Your task to perform on an android device: Empty the shopping cart on target.com. Add sony triple a to the cart on target.com, then select checkout. Image 0: 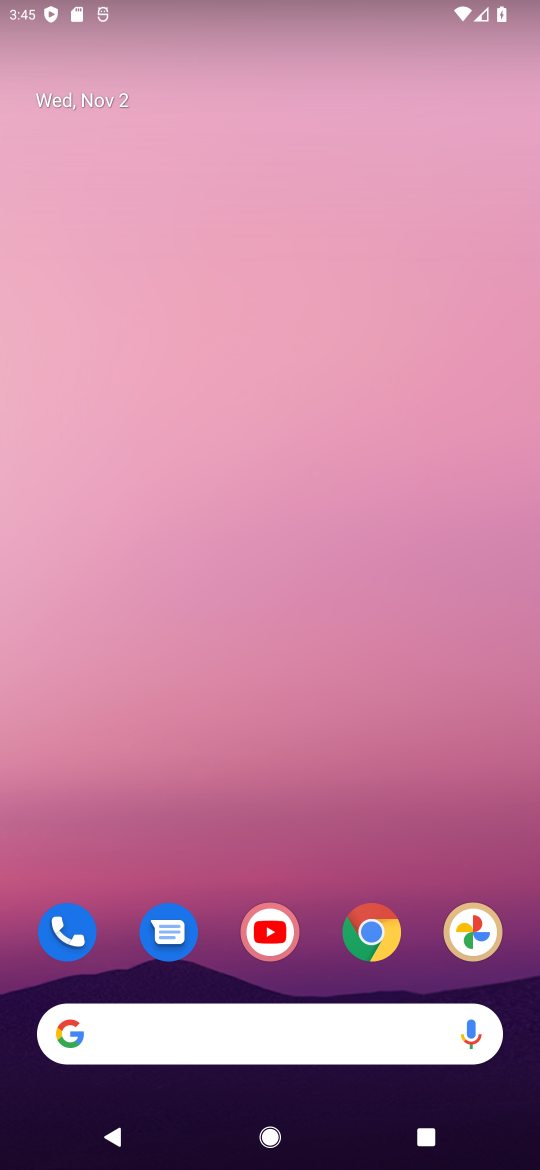
Step 0: click (387, 934)
Your task to perform on an android device: Empty the shopping cart on target.com. Add sony triple a to the cart on target.com, then select checkout. Image 1: 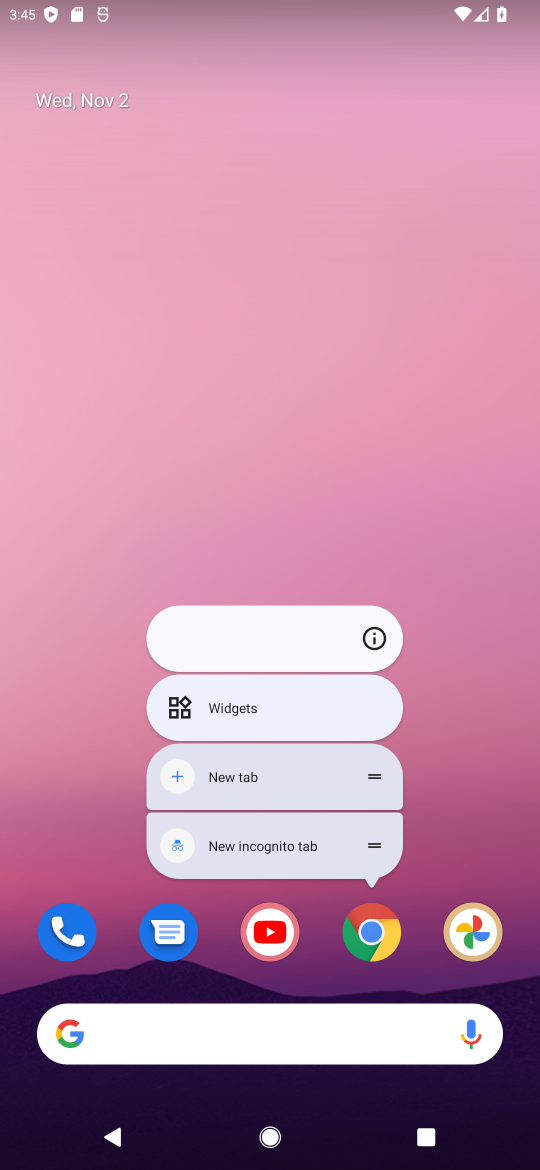
Step 1: click (387, 934)
Your task to perform on an android device: Empty the shopping cart on target.com. Add sony triple a to the cart on target.com, then select checkout. Image 2: 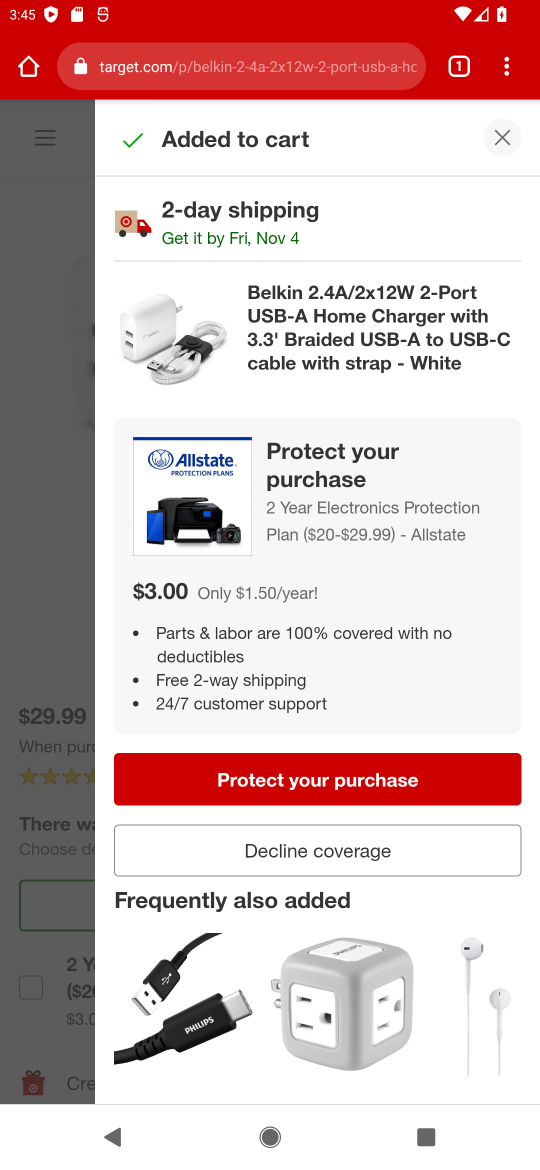
Step 2: click (503, 144)
Your task to perform on an android device: Empty the shopping cart on target.com. Add sony triple a to the cart on target.com, then select checkout. Image 3: 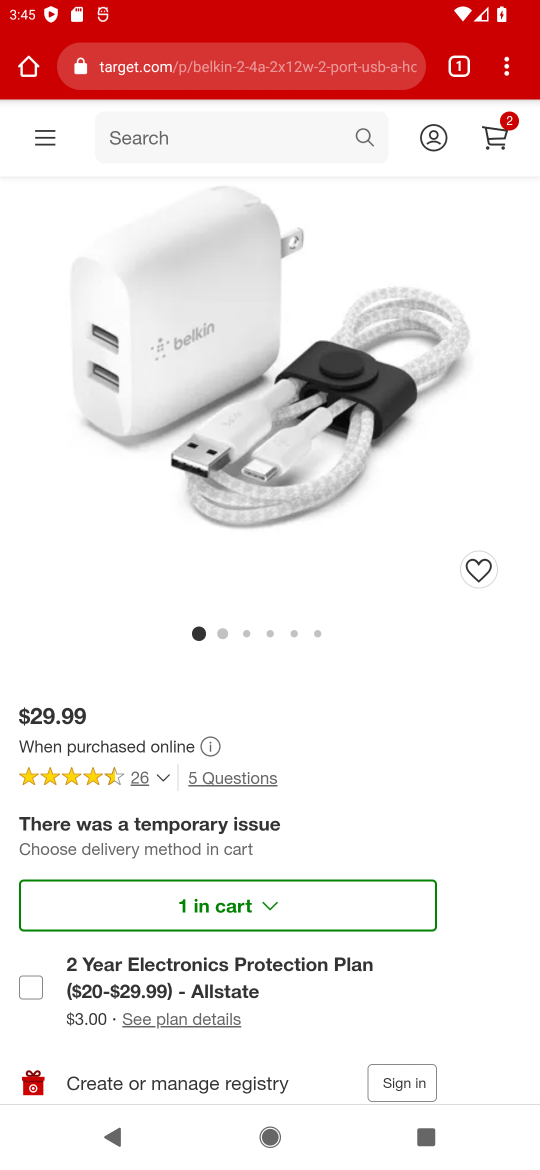
Step 3: click (490, 141)
Your task to perform on an android device: Empty the shopping cart on target.com. Add sony triple a to the cart on target.com, then select checkout. Image 4: 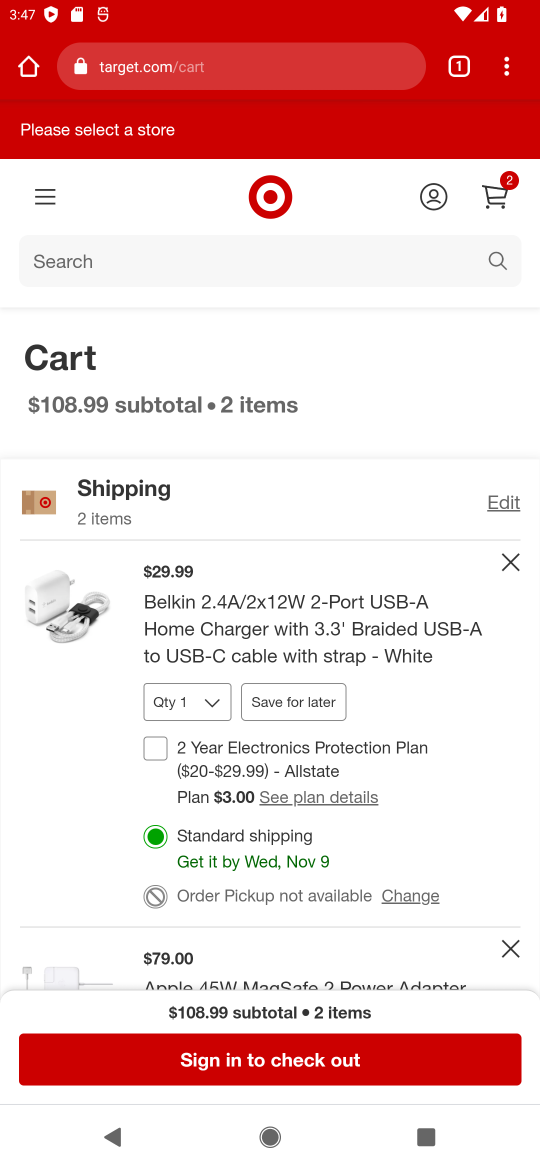
Step 4: click (509, 555)
Your task to perform on an android device: Empty the shopping cart on target.com. Add sony triple a to the cart on target.com, then select checkout. Image 5: 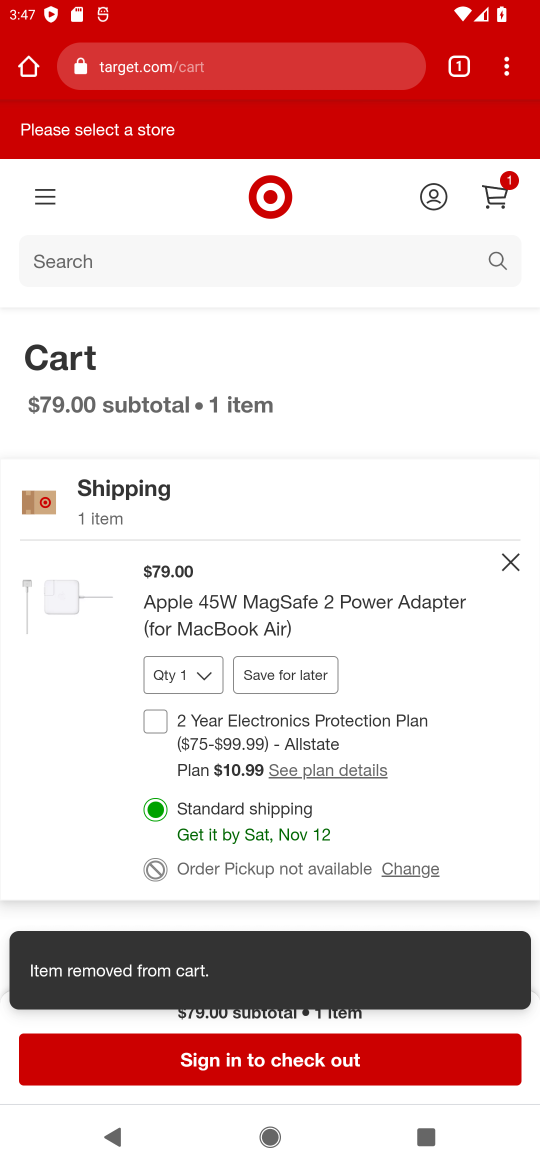
Step 5: click (504, 556)
Your task to perform on an android device: Empty the shopping cart on target.com. Add sony triple a to the cart on target.com, then select checkout. Image 6: 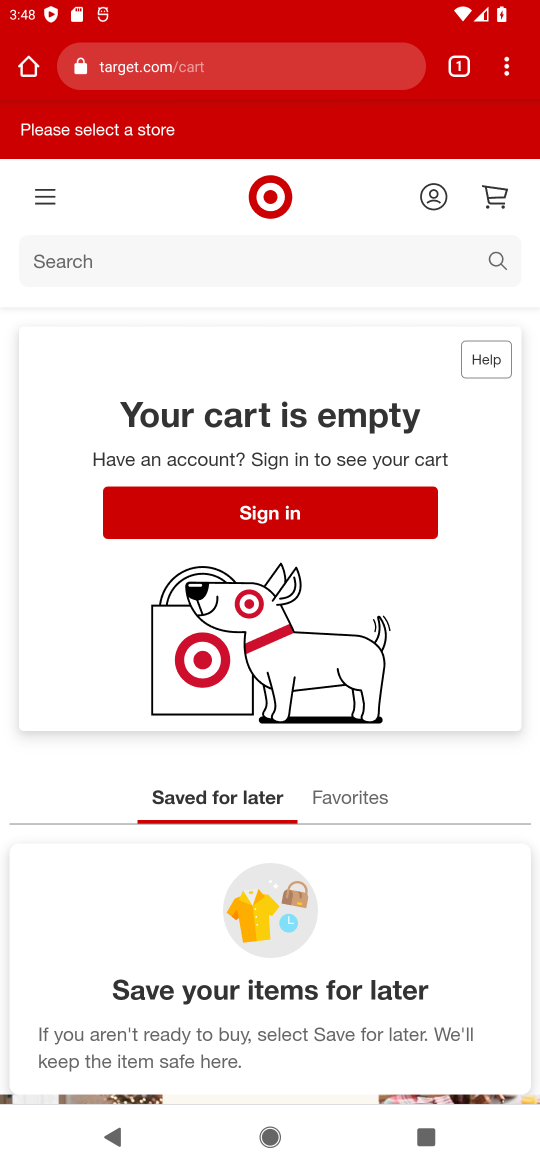
Step 6: click (498, 256)
Your task to perform on an android device: Empty the shopping cart on target.com. Add sony triple a to the cart on target.com, then select checkout. Image 7: 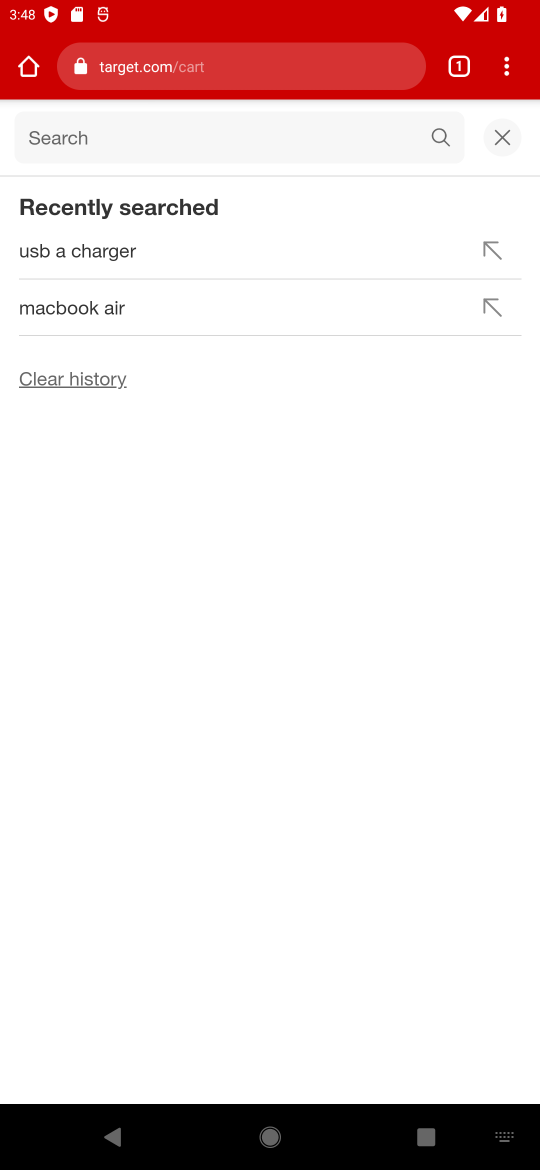
Step 7: type "sony triple a"
Your task to perform on an android device: Empty the shopping cart on target.com. Add sony triple a to the cart on target.com, then select checkout. Image 8: 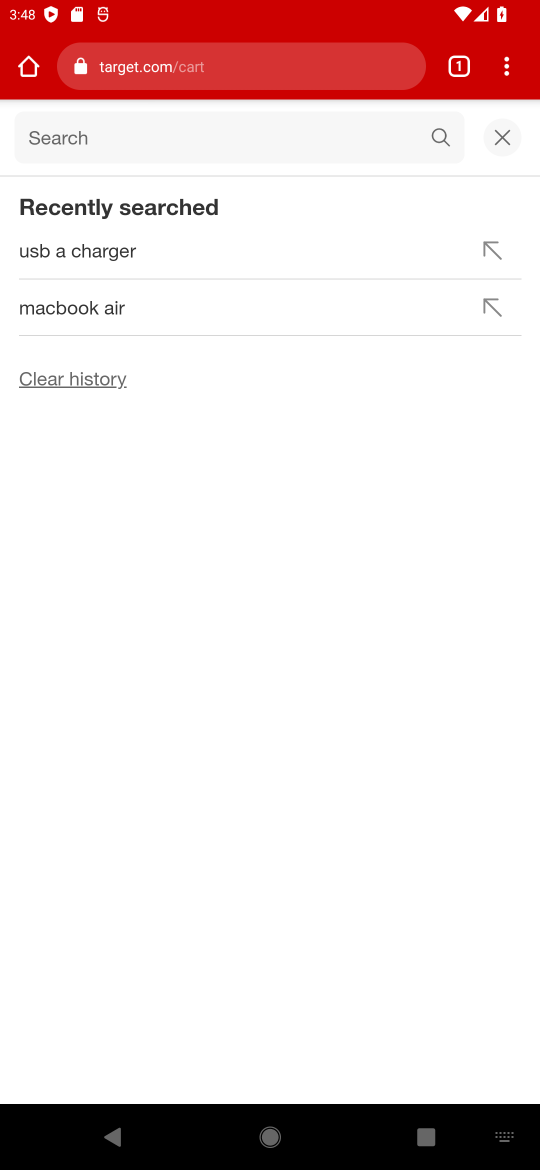
Step 8: press enter
Your task to perform on an android device: Empty the shopping cart on target.com. Add sony triple a to the cart on target.com, then select checkout. Image 9: 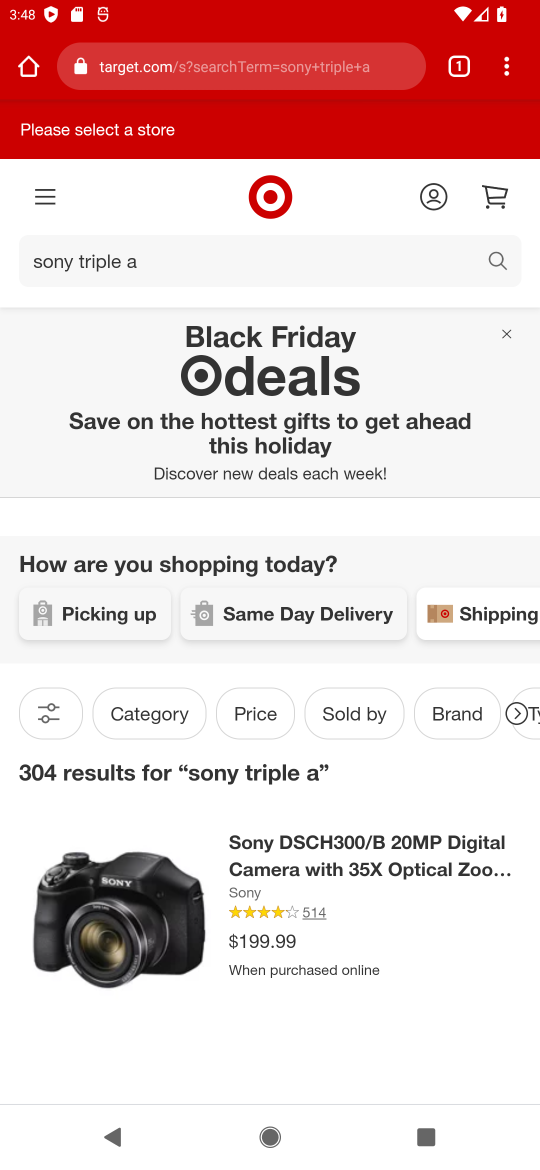
Step 9: drag from (365, 901) to (333, 556)
Your task to perform on an android device: Empty the shopping cart on target.com. Add sony triple a to the cart on target.com, then select checkout. Image 10: 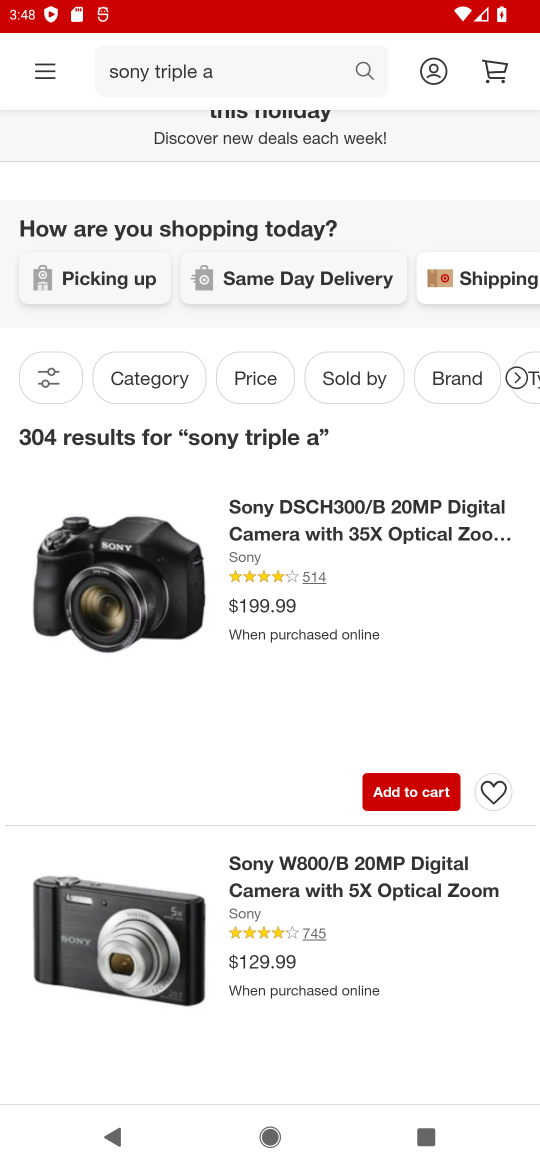
Step 10: drag from (442, 973) to (455, 532)
Your task to perform on an android device: Empty the shopping cart on target.com. Add sony triple a to the cart on target.com, then select checkout. Image 11: 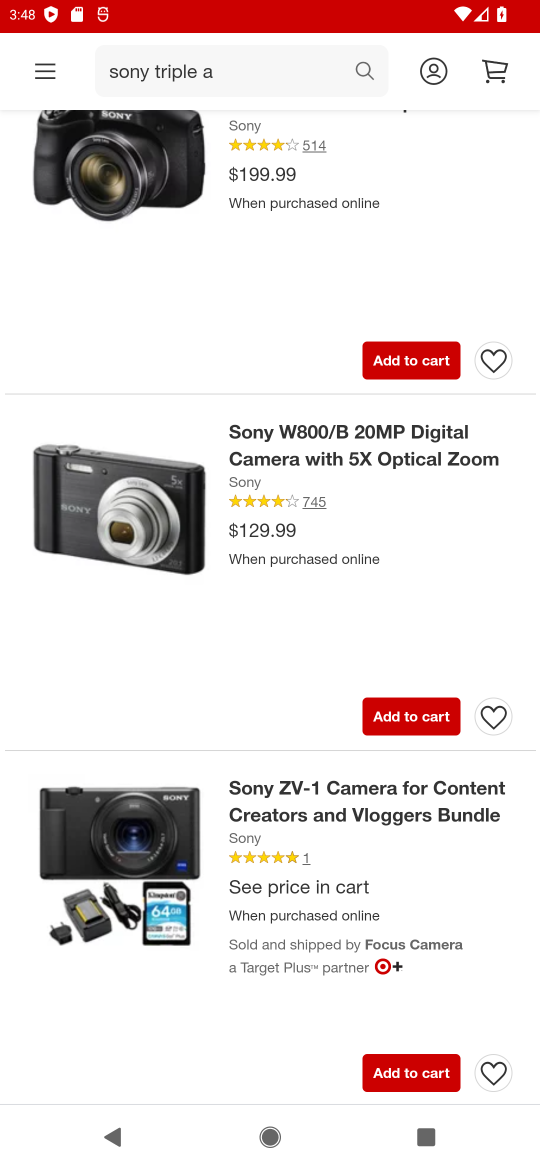
Step 11: drag from (337, 888) to (351, 542)
Your task to perform on an android device: Empty the shopping cart on target.com. Add sony triple a to the cart on target.com, then select checkout. Image 12: 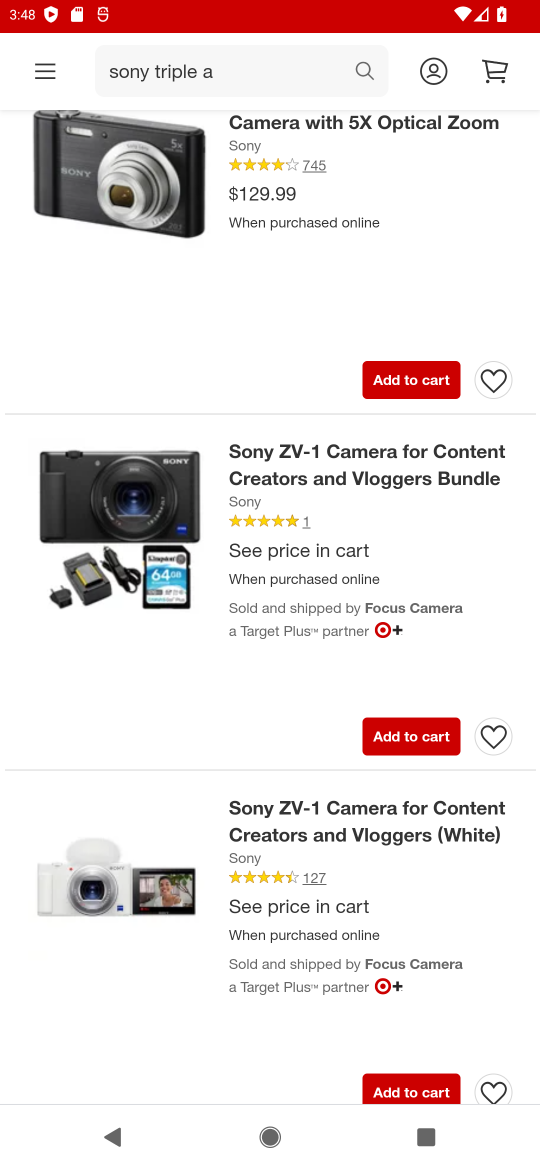
Step 12: drag from (385, 933) to (375, 464)
Your task to perform on an android device: Empty the shopping cart on target.com. Add sony triple a to the cart on target.com, then select checkout. Image 13: 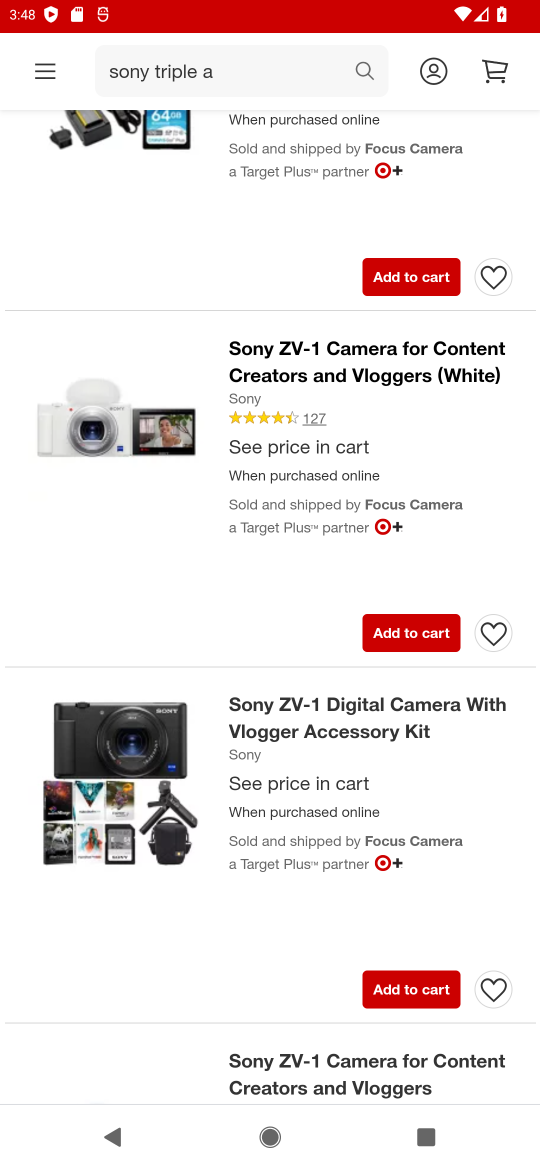
Step 13: drag from (419, 826) to (409, 425)
Your task to perform on an android device: Empty the shopping cart on target.com. Add sony triple a to the cart on target.com, then select checkout. Image 14: 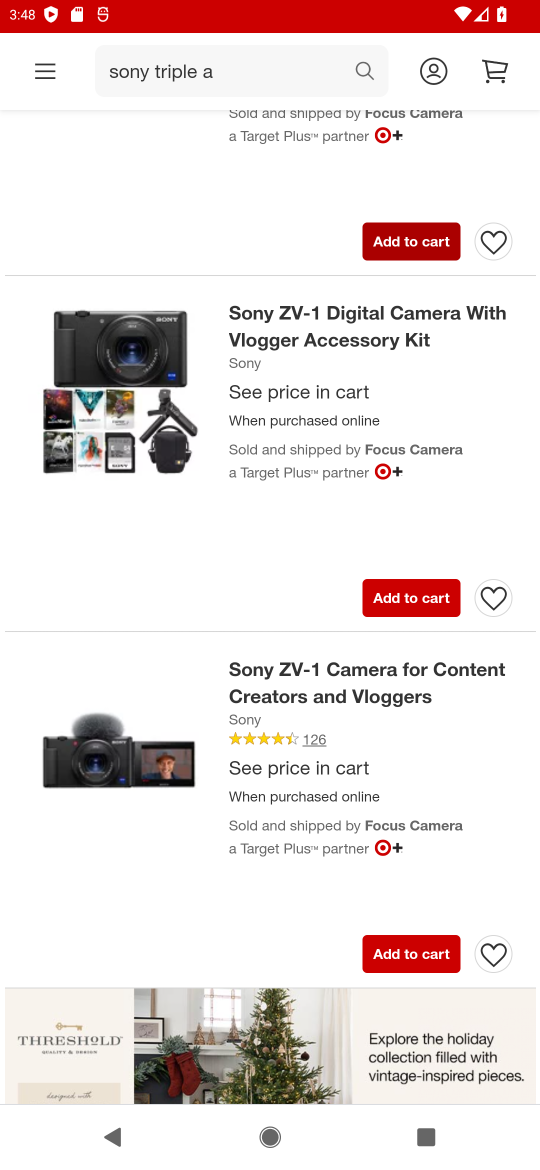
Step 14: drag from (373, 792) to (387, 379)
Your task to perform on an android device: Empty the shopping cart on target.com. Add sony triple a to the cart on target.com, then select checkout. Image 15: 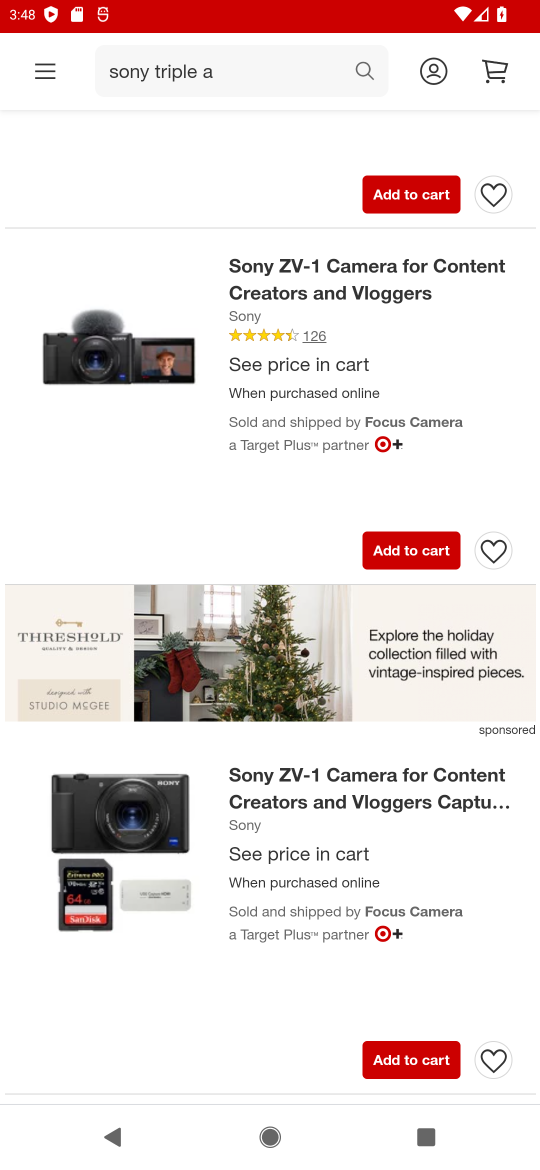
Step 15: drag from (370, 853) to (418, 362)
Your task to perform on an android device: Empty the shopping cart on target.com. Add sony triple a to the cart on target.com, then select checkout. Image 16: 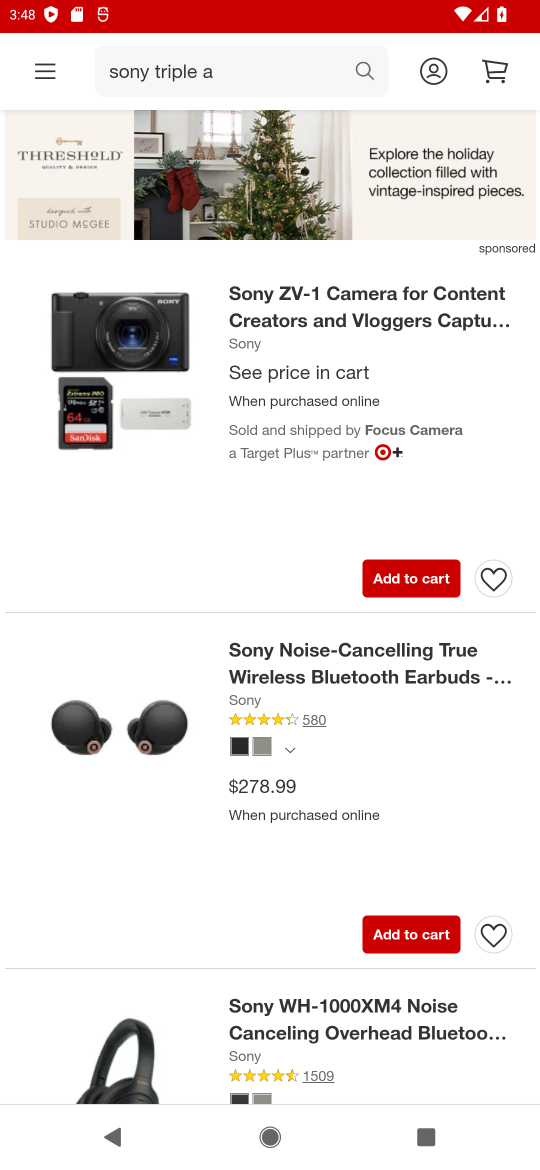
Step 16: drag from (375, 817) to (404, 269)
Your task to perform on an android device: Empty the shopping cart on target.com. Add sony triple a to the cart on target.com, then select checkout. Image 17: 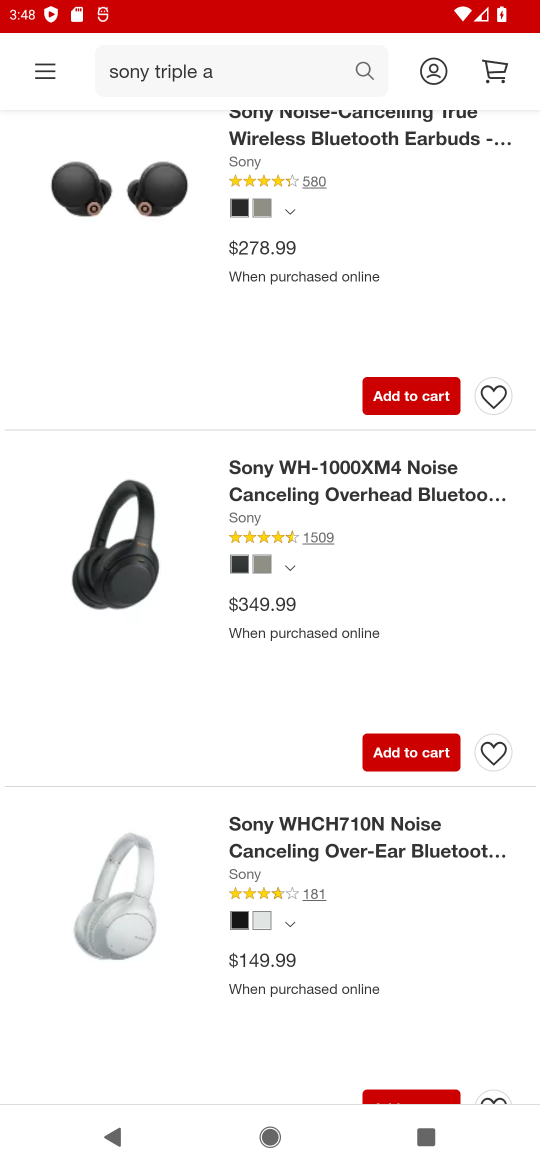
Step 17: drag from (362, 898) to (455, 309)
Your task to perform on an android device: Empty the shopping cart on target.com. Add sony triple a to the cart on target.com, then select checkout. Image 18: 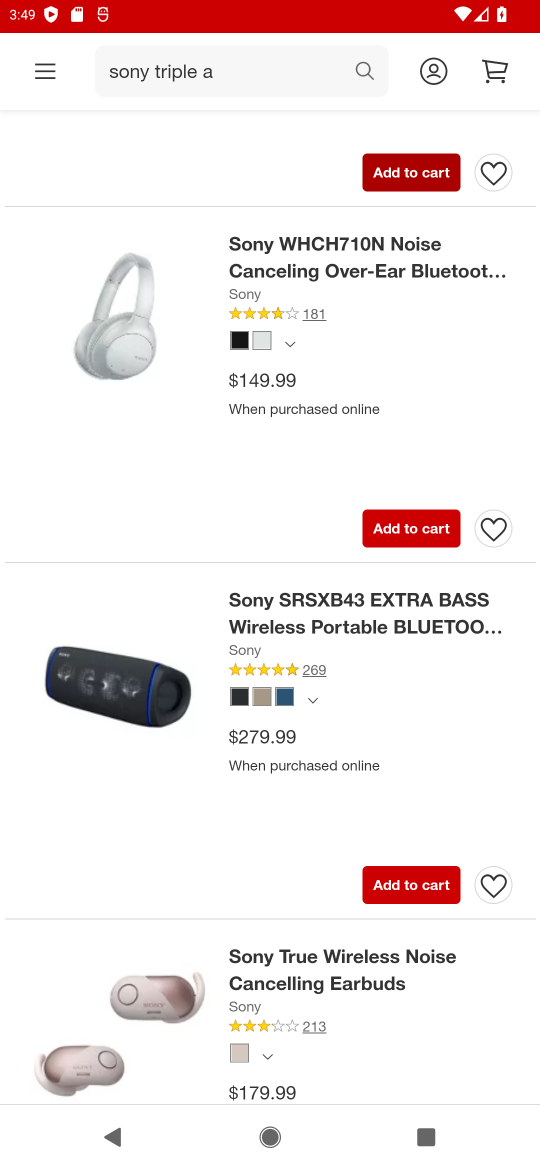
Step 18: drag from (390, 651) to (407, 233)
Your task to perform on an android device: Empty the shopping cart on target.com. Add sony triple a to the cart on target.com, then select checkout. Image 19: 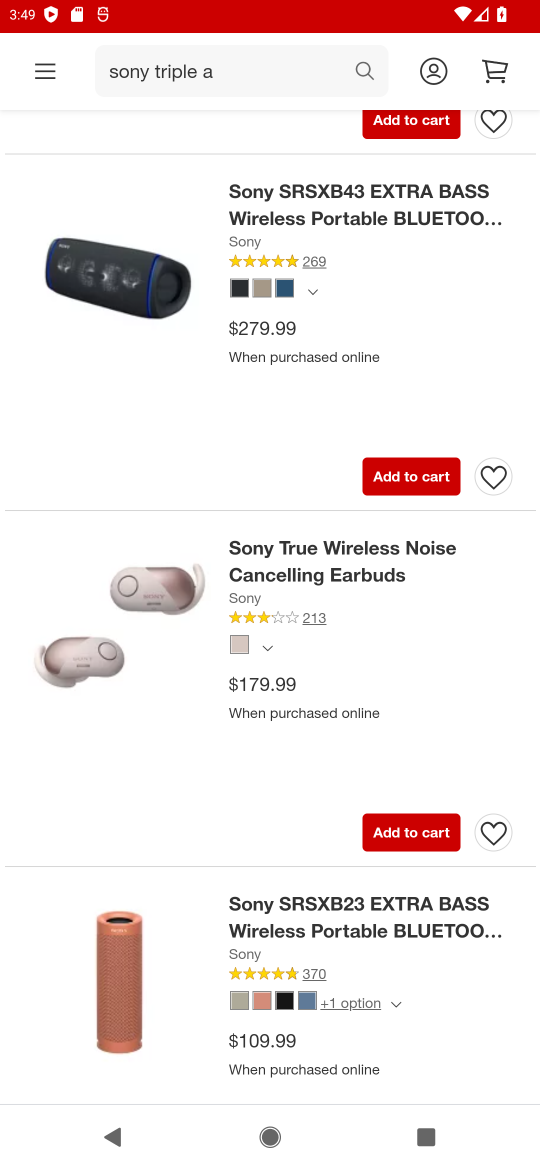
Step 19: drag from (399, 1002) to (419, 387)
Your task to perform on an android device: Empty the shopping cart on target.com. Add sony triple a to the cart on target.com, then select checkout. Image 20: 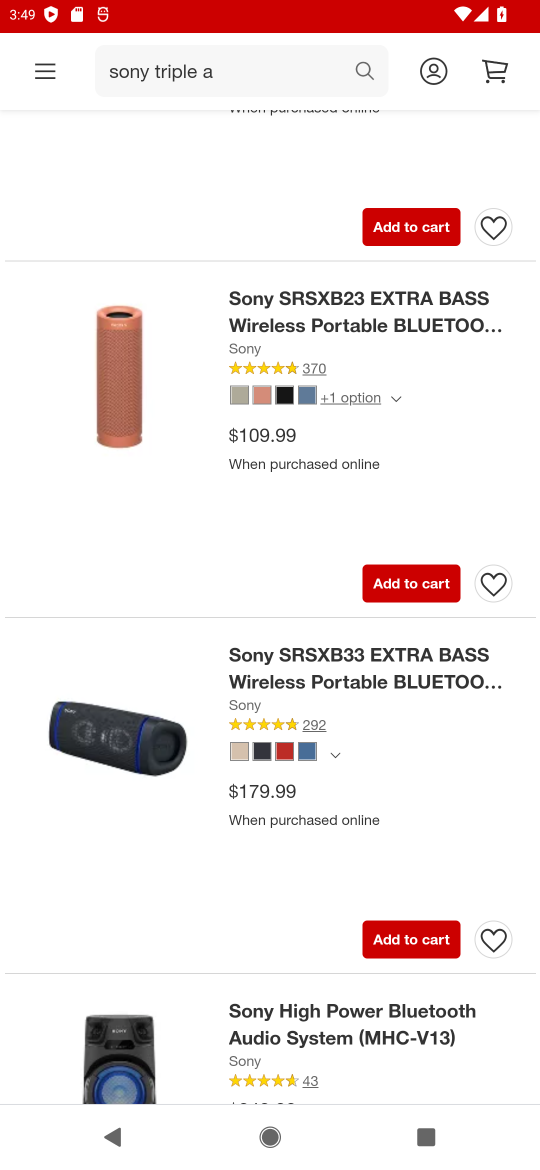
Step 20: drag from (314, 980) to (350, 404)
Your task to perform on an android device: Empty the shopping cart on target.com. Add sony triple a to the cart on target.com, then select checkout. Image 21: 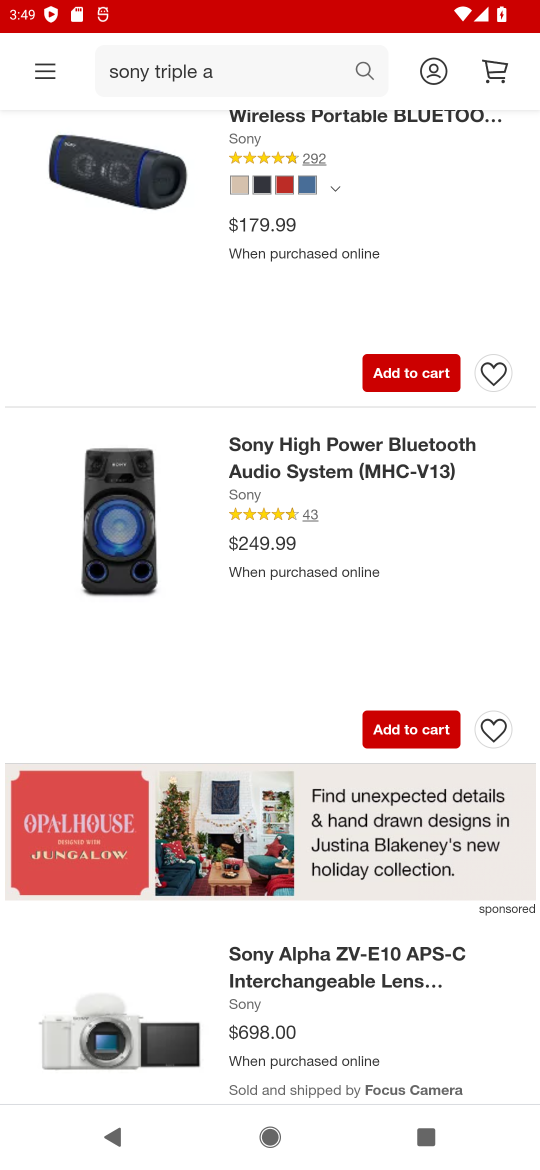
Step 21: drag from (395, 982) to (418, 364)
Your task to perform on an android device: Empty the shopping cart on target.com. Add sony triple a to the cart on target.com, then select checkout. Image 22: 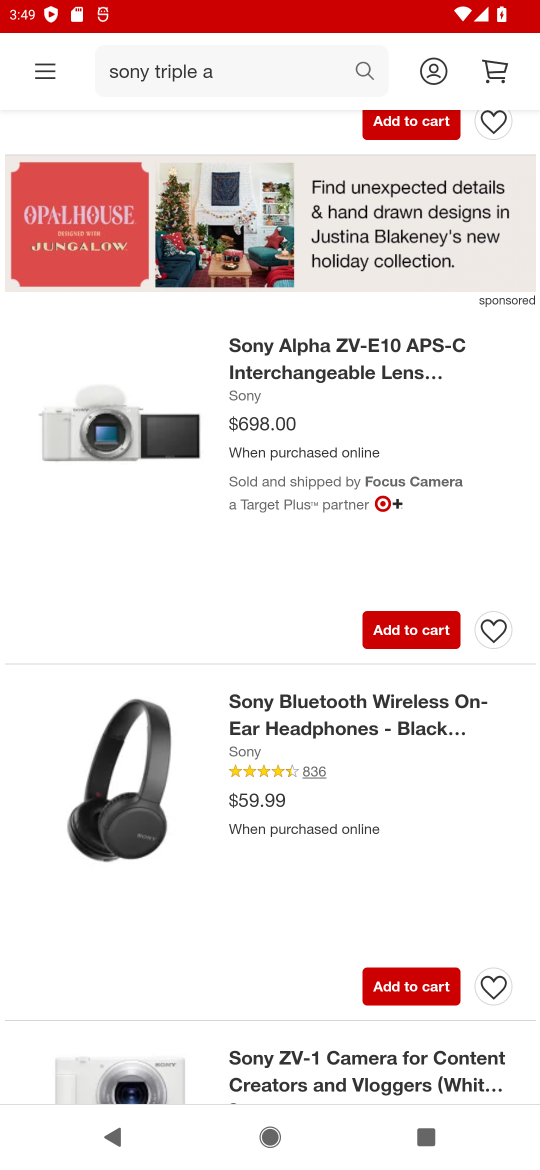
Step 22: drag from (413, 973) to (452, 330)
Your task to perform on an android device: Empty the shopping cart on target.com. Add sony triple a to the cart on target.com, then select checkout. Image 23: 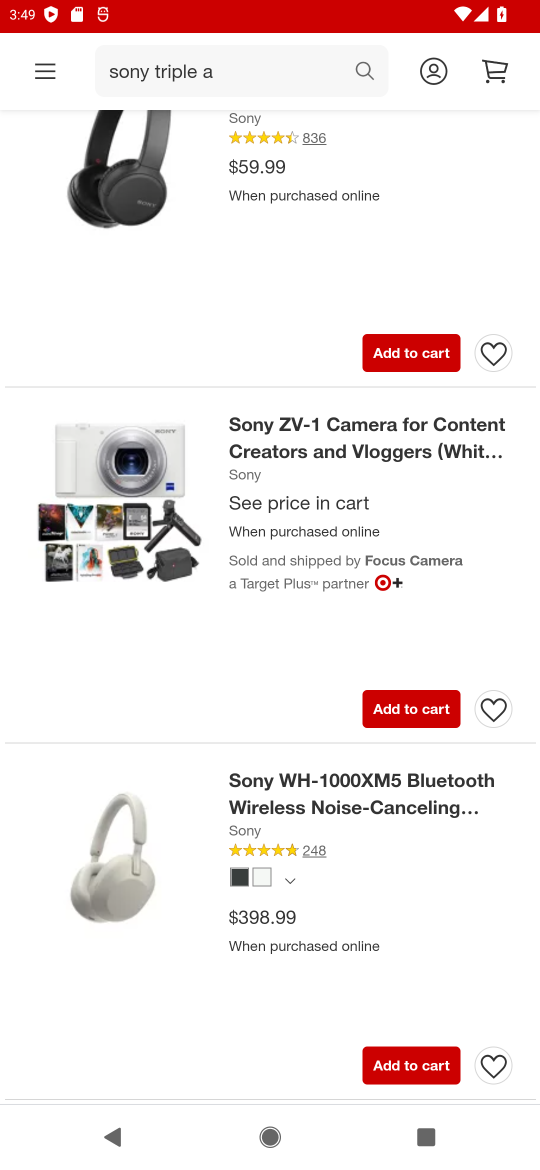
Step 23: drag from (327, 845) to (350, 262)
Your task to perform on an android device: Empty the shopping cart on target.com. Add sony triple a to the cart on target.com, then select checkout. Image 24: 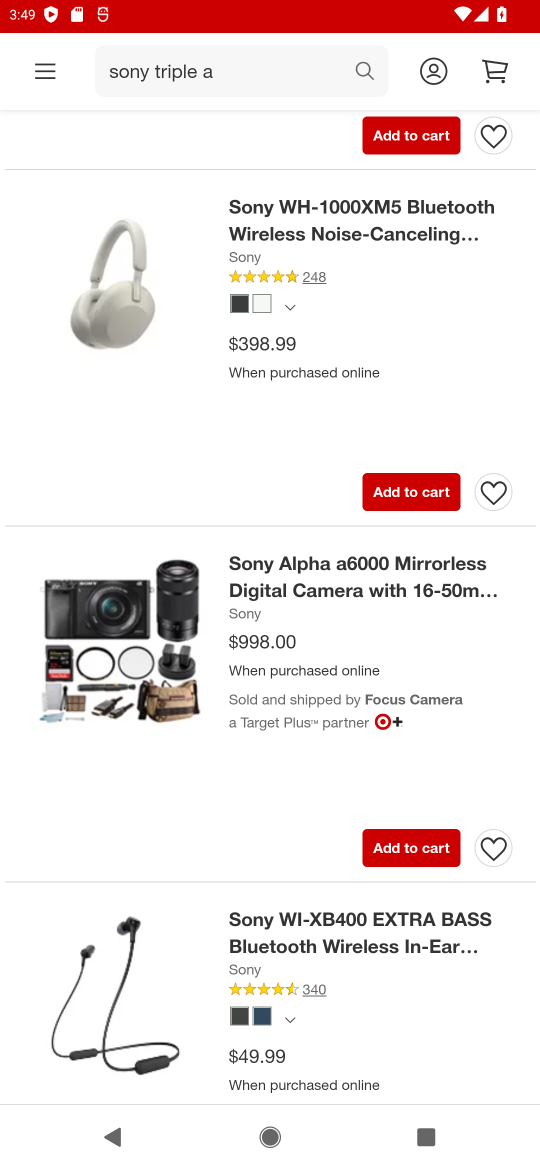
Step 24: click (93, 954)
Your task to perform on an android device: Empty the shopping cart on target.com. Add sony triple a to the cart on target.com, then select checkout. Image 25: 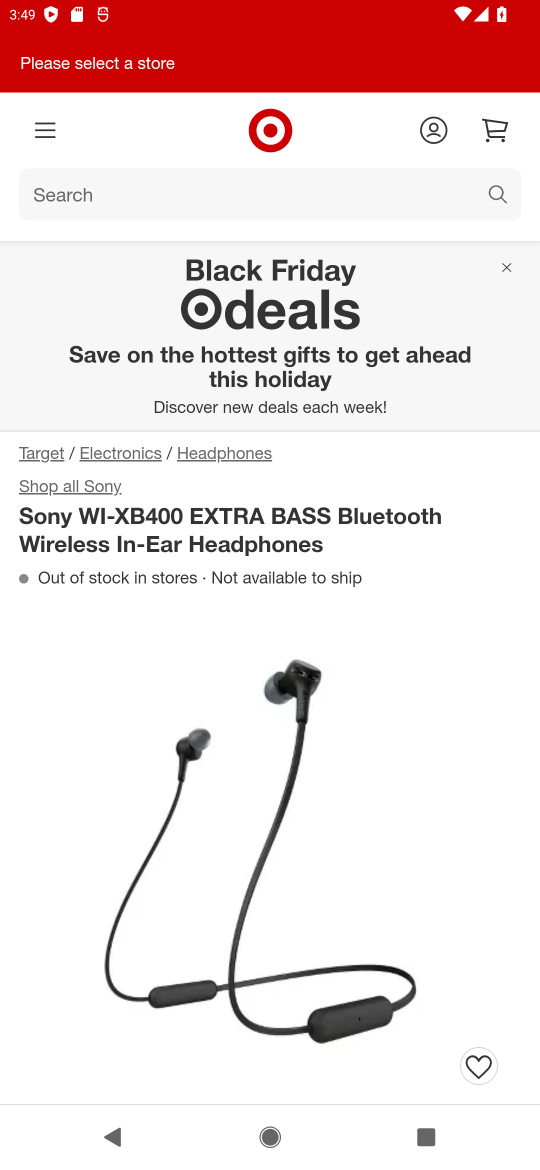
Step 25: drag from (450, 796) to (539, 271)
Your task to perform on an android device: Empty the shopping cart on target.com. Add sony triple a to the cart on target.com, then select checkout. Image 26: 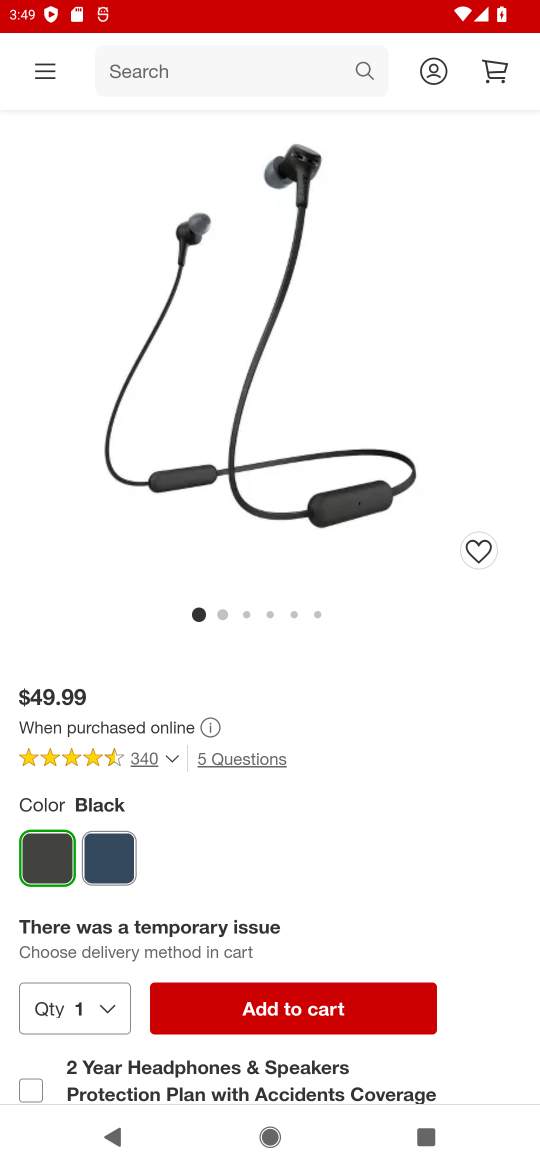
Step 26: click (335, 1011)
Your task to perform on an android device: Empty the shopping cart on target.com. Add sony triple a to the cart on target.com, then select checkout. Image 27: 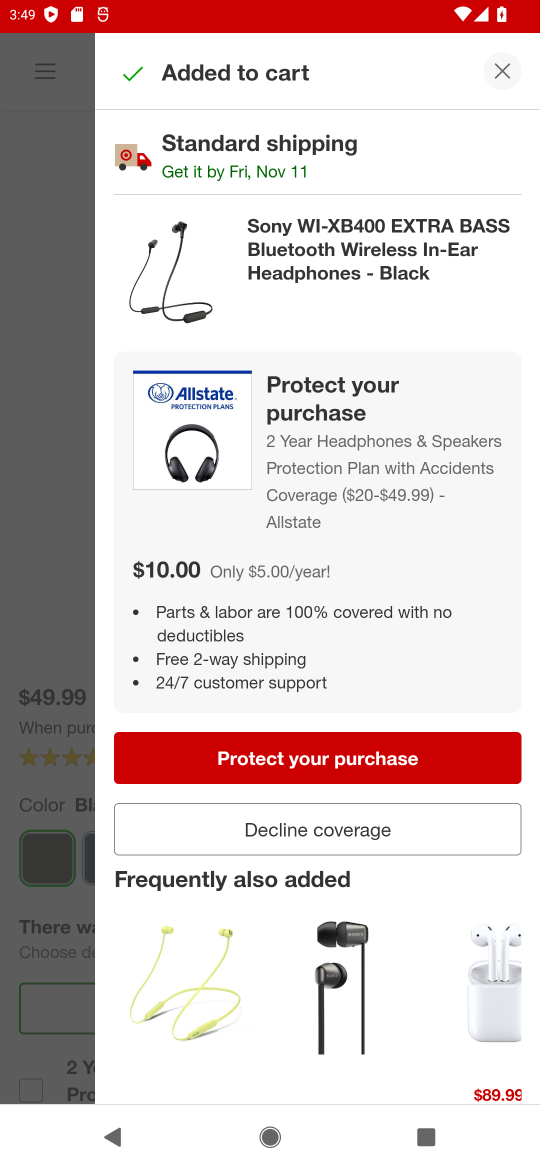
Step 27: click (497, 65)
Your task to perform on an android device: Empty the shopping cart on target.com. Add sony triple a to the cart on target.com, then select checkout. Image 28: 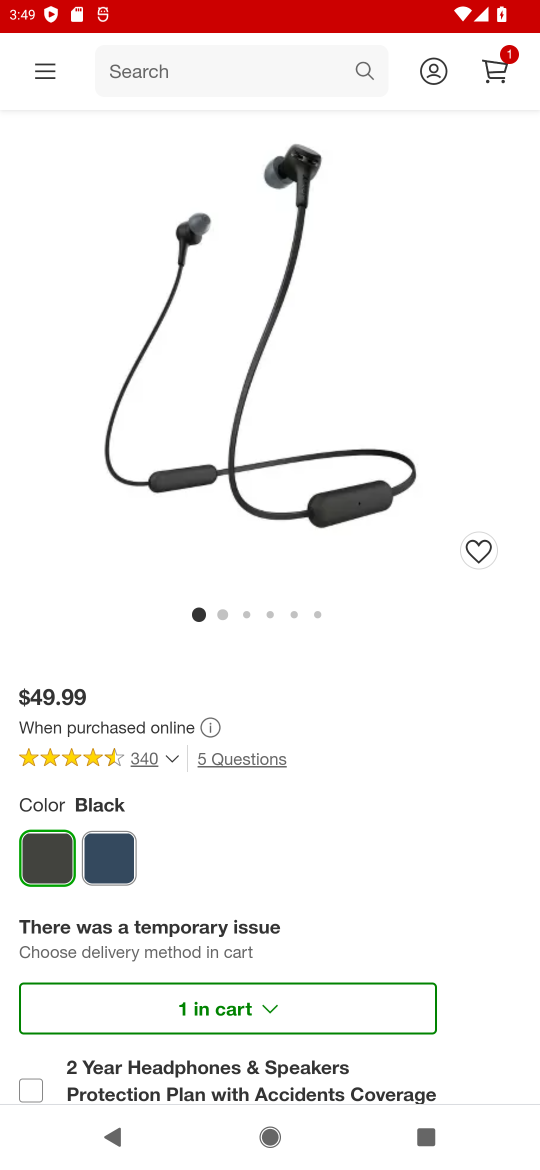
Step 28: click (498, 72)
Your task to perform on an android device: Empty the shopping cart on target.com. Add sony triple a to the cart on target.com, then select checkout. Image 29: 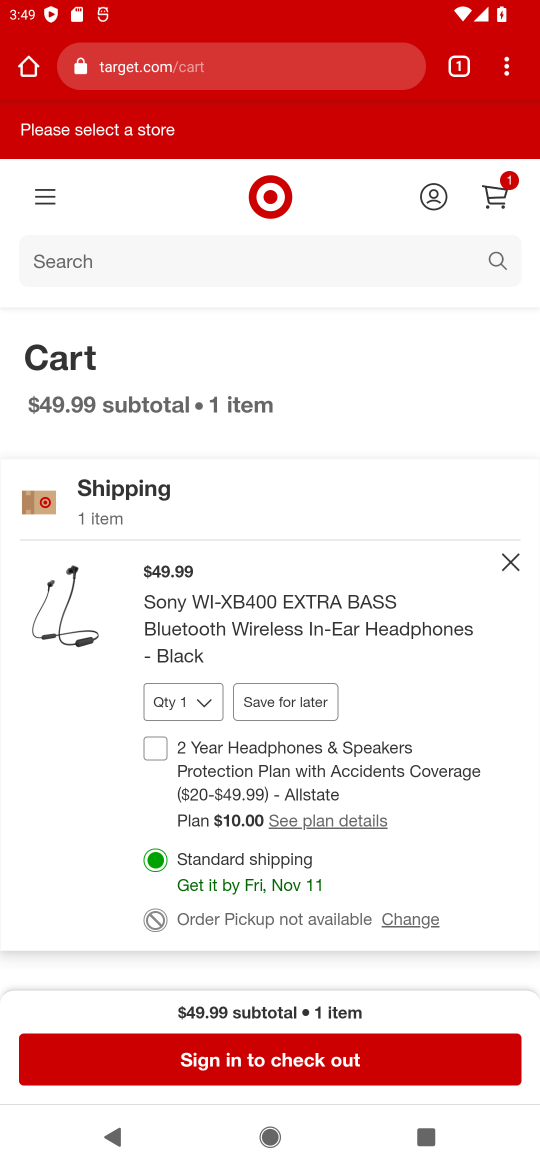
Step 29: click (341, 1062)
Your task to perform on an android device: Empty the shopping cart on target.com. Add sony triple a to the cart on target.com, then select checkout. Image 30: 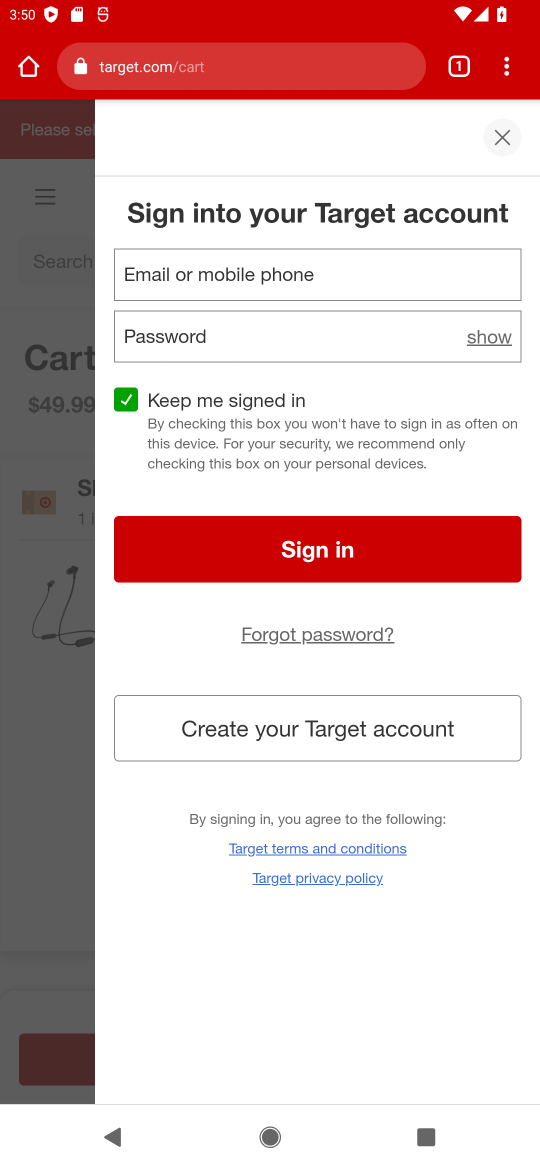
Step 30: task complete